Your task to perform on an android device: turn off wifi Image 0: 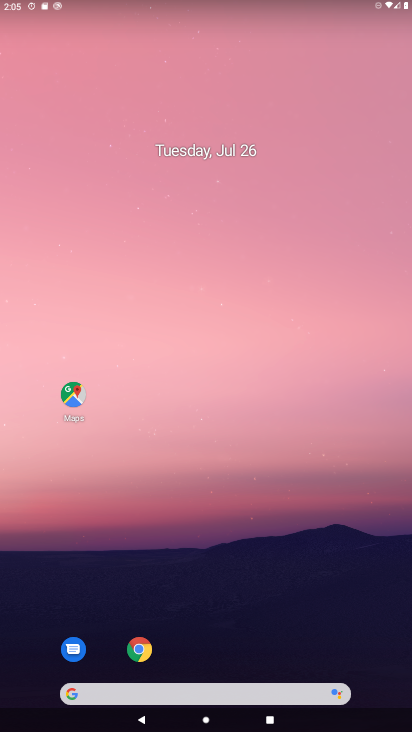
Step 0: drag from (363, 629) to (226, 119)
Your task to perform on an android device: turn off wifi Image 1: 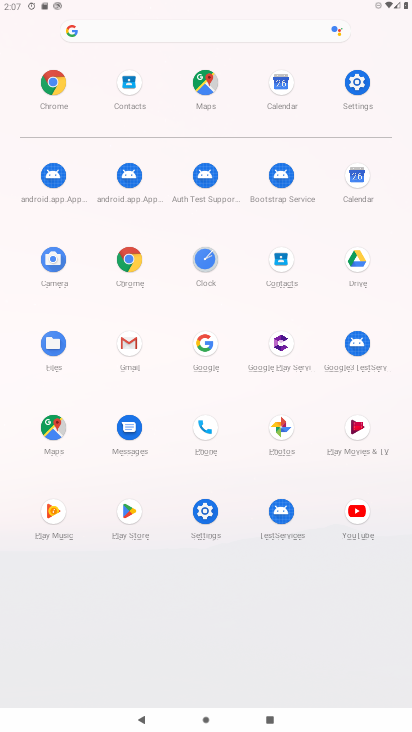
Step 1: drag from (164, 0) to (189, 516)
Your task to perform on an android device: turn off wifi Image 2: 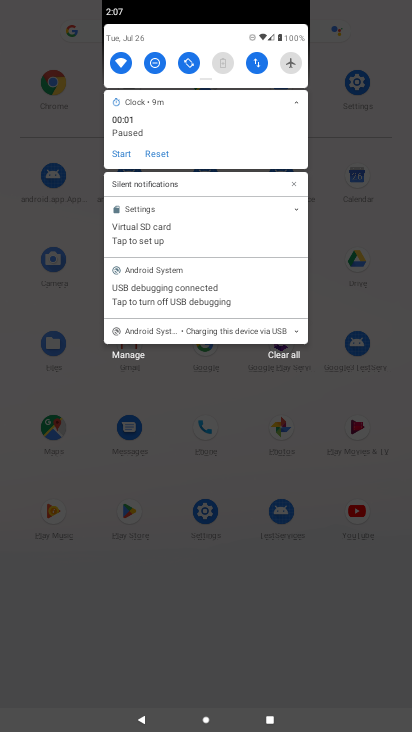
Step 2: click (123, 65)
Your task to perform on an android device: turn off wifi Image 3: 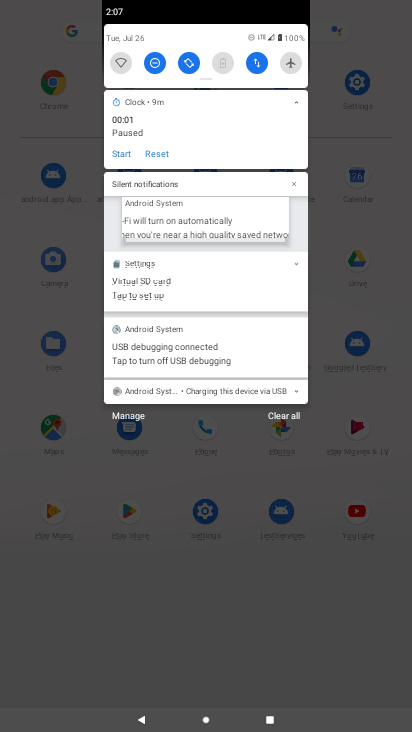
Step 3: task complete